Your task to perform on an android device: read, delete, or share a saved page in the chrome app Image 0: 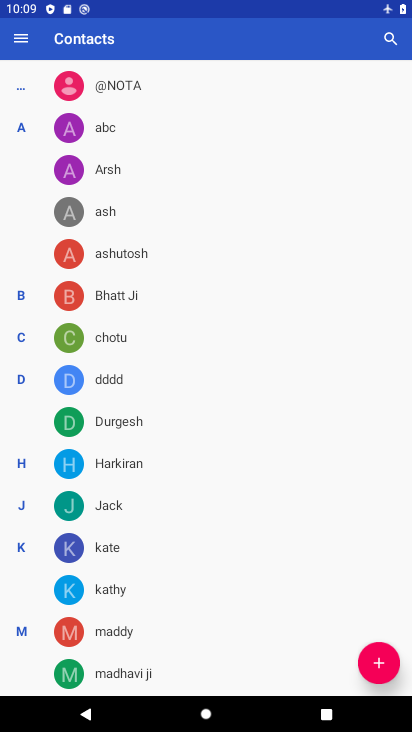
Step 0: press home button
Your task to perform on an android device: read, delete, or share a saved page in the chrome app Image 1: 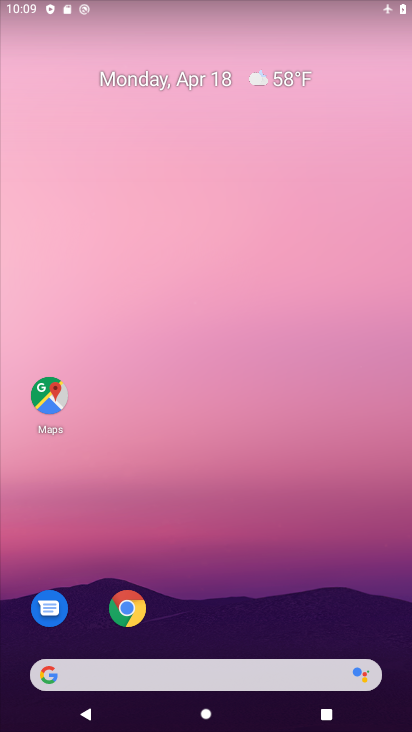
Step 1: drag from (188, 637) to (239, 110)
Your task to perform on an android device: read, delete, or share a saved page in the chrome app Image 2: 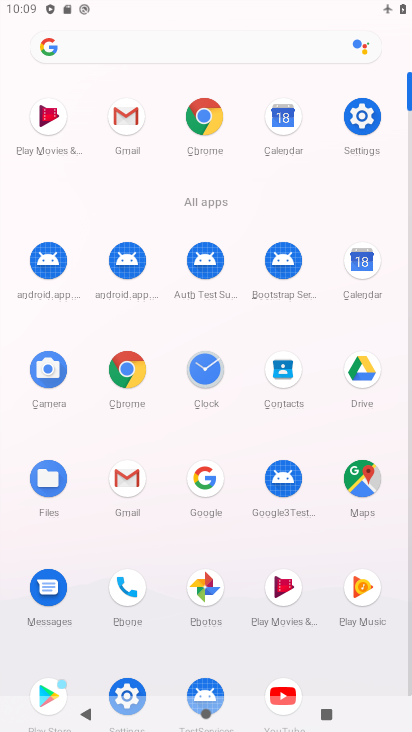
Step 2: click (225, 133)
Your task to perform on an android device: read, delete, or share a saved page in the chrome app Image 3: 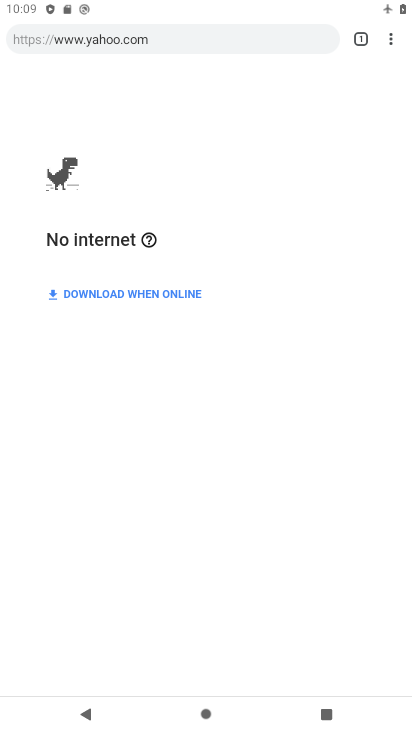
Step 3: click (390, 43)
Your task to perform on an android device: read, delete, or share a saved page in the chrome app Image 4: 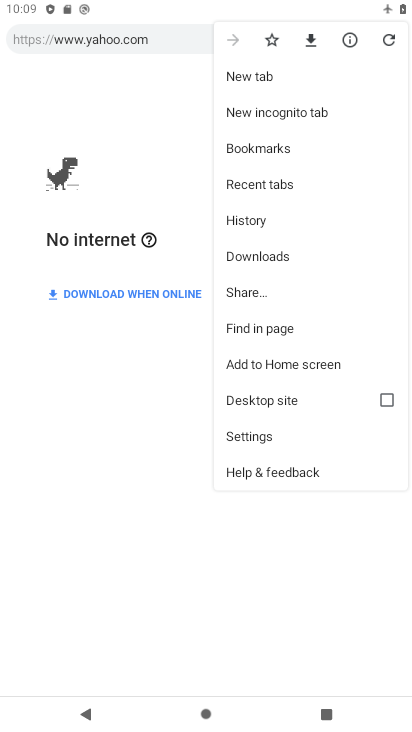
Step 4: click (274, 251)
Your task to perform on an android device: read, delete, or share a saved page in the chrome app Image 5: 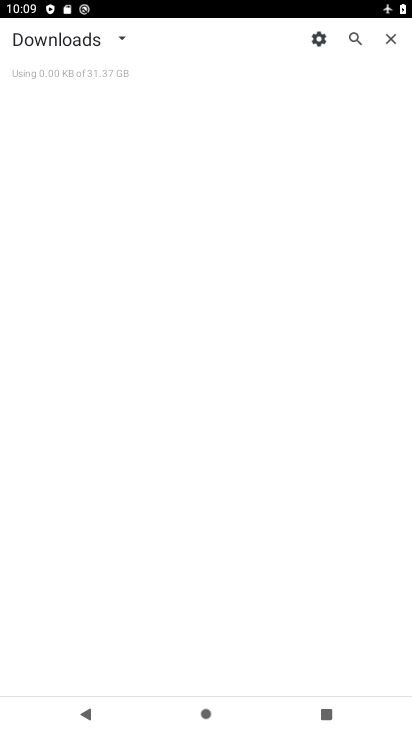
Step 5: task complete